Your task to perform on an android device: Go to network settings Image 0: 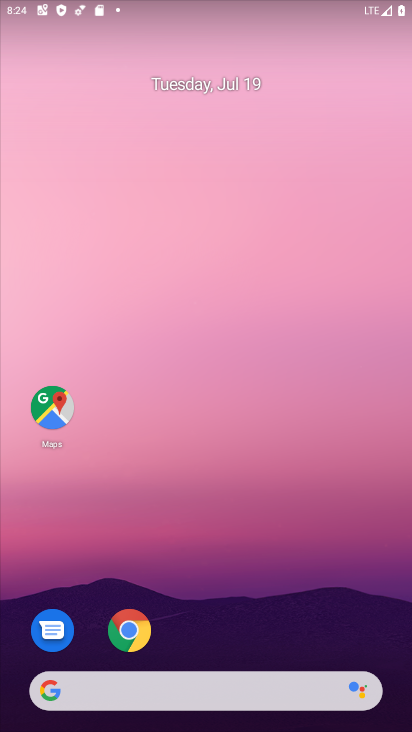
Step 0: drag from (248, 683) to (277, 190)
Your task to perform on an android device: Go to network settings Image 1: 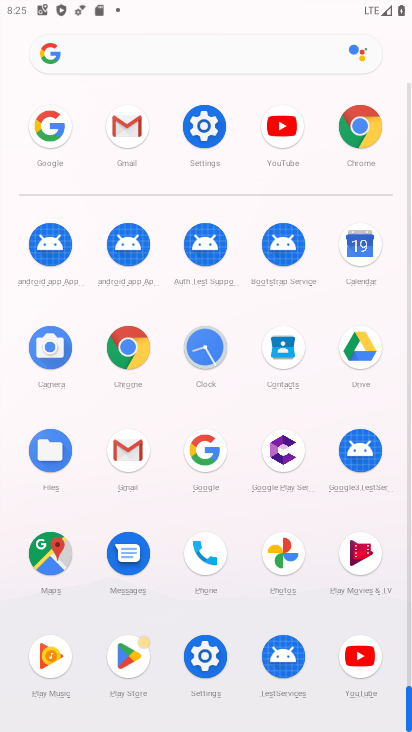
Step 1: click (200, 140)
Your task to perform on an android device: Go to network settings Image 2: 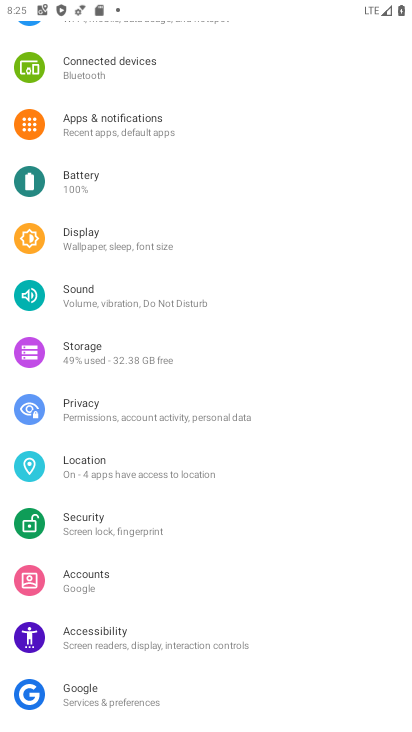
Step 2: drag from (161, 180) to (197, 497)
Your task to perform on an android device: Go to network settings Image 3: 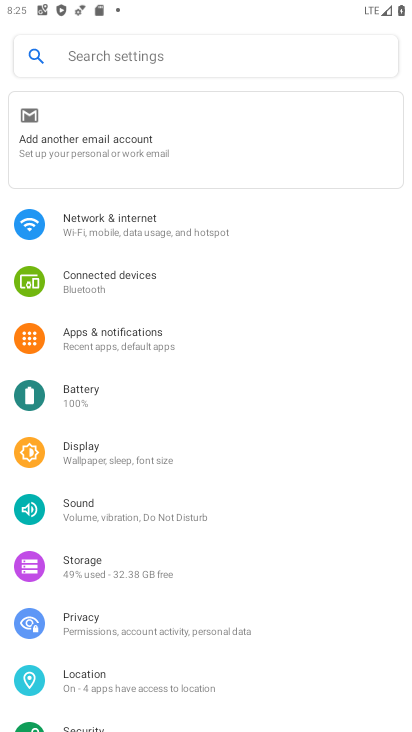
Step 3: click (125, 239)
Your task to perform on an android device: Go to network settings Image 4: 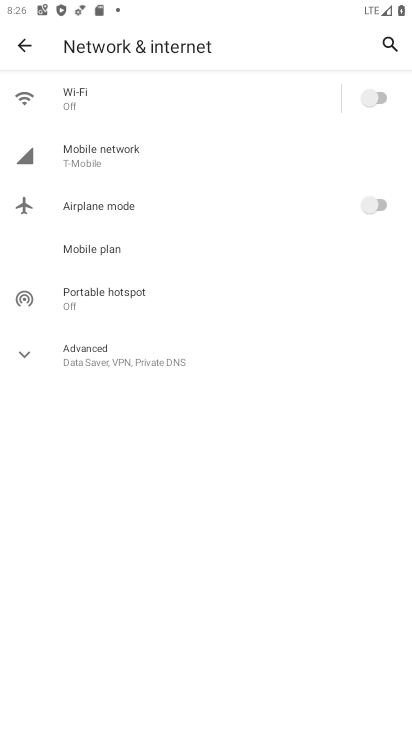
Step 4: task complete